Your task to perform on an android device: visit the assistant section in the google photos Image 0: 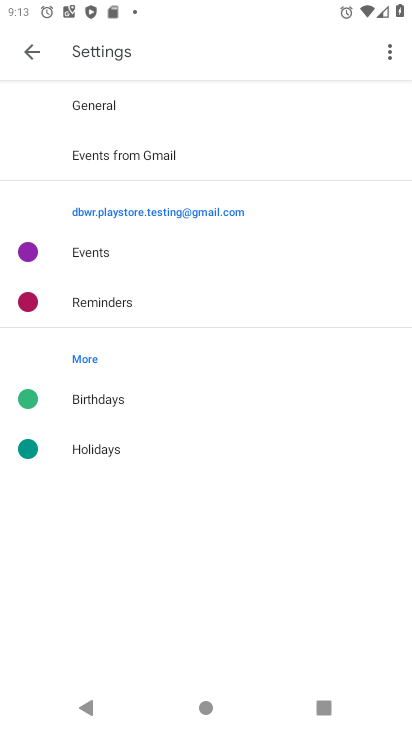
Step 0: press home button
Your task to perform on an android device: visit the assistant section in the google photos Image 1: 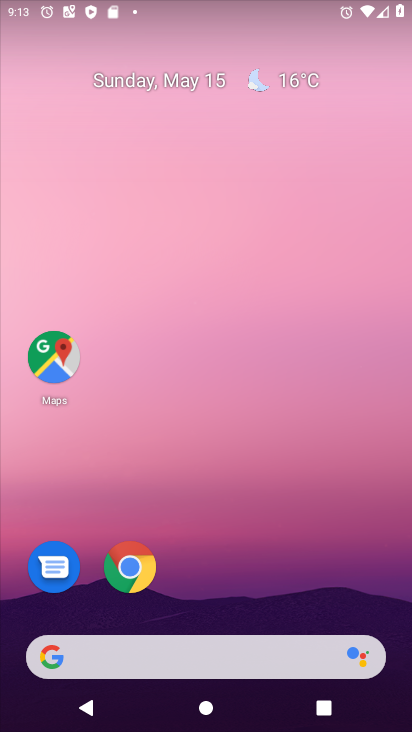
Step 1: drag from (230, 658) to (296, 78)
Your task to perform on an android device: visit the assistant section in the google photos Image 2: 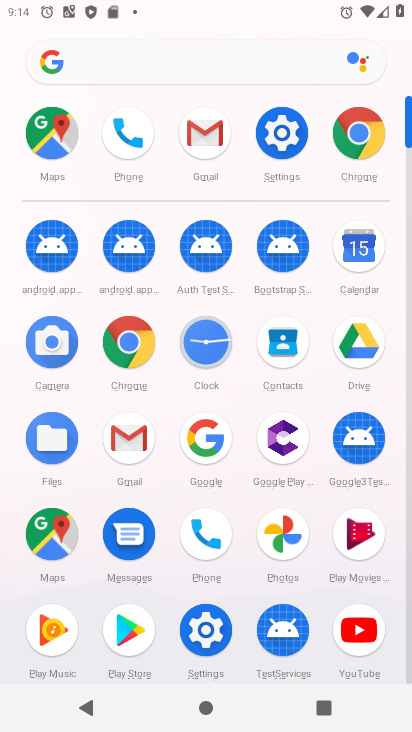
Step 2: click (272, 534)
Your task to perform on an android device: visit the assistant section in the google photos Image 3: 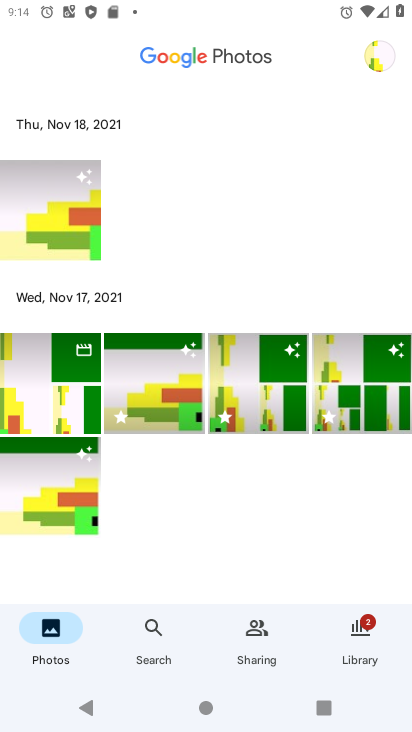
Step 3: task complete